Your task to perform on an android device: Open calendar and show me the second week of next month Image 0: 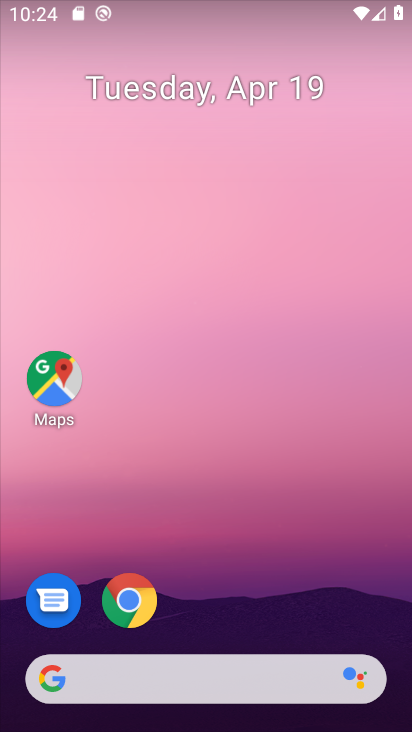
Step 0: drag from (223, 414) to (223, 37)
Your task to perform on an android device: Open calendar and show me the second week of next month Image 1: 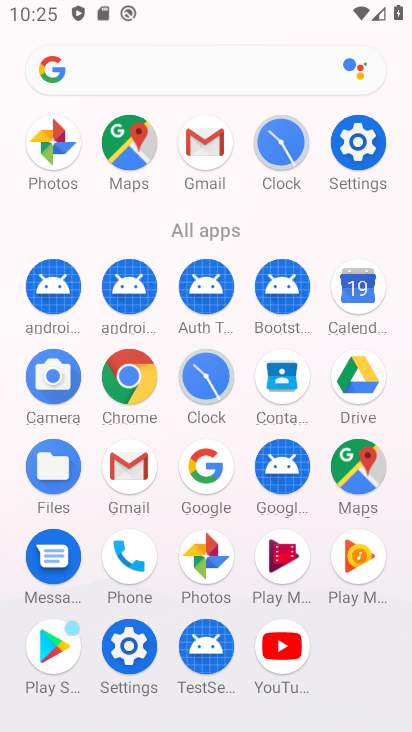
Step 1: click (346, 297)
Your task to perform on an android device: Open calendar and show me the second week of next month Image 2: 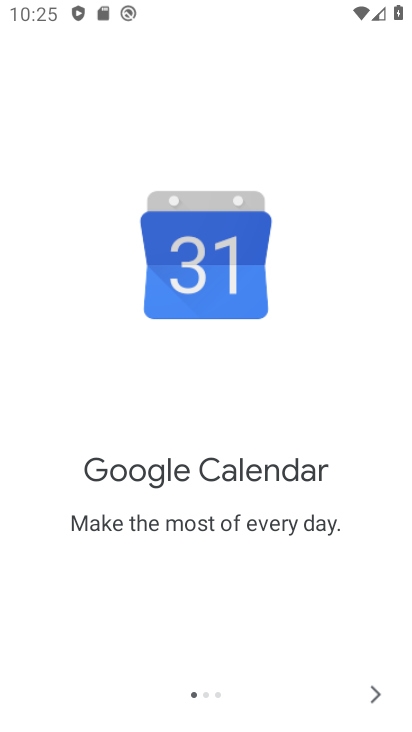
Step 2: click (372, 689)
Your task to perform on an android device: Open calendar and show me the second week of next month Image 3: 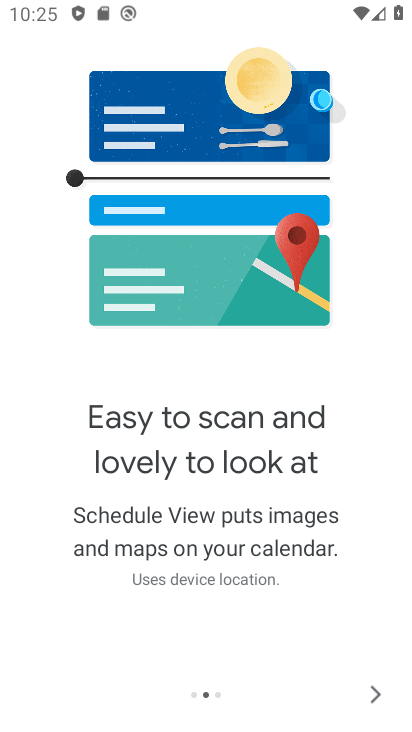
Step 3: click (369, 692)
Your task to perform on an android device: Open calendar and show me the second week of next month Image 4: 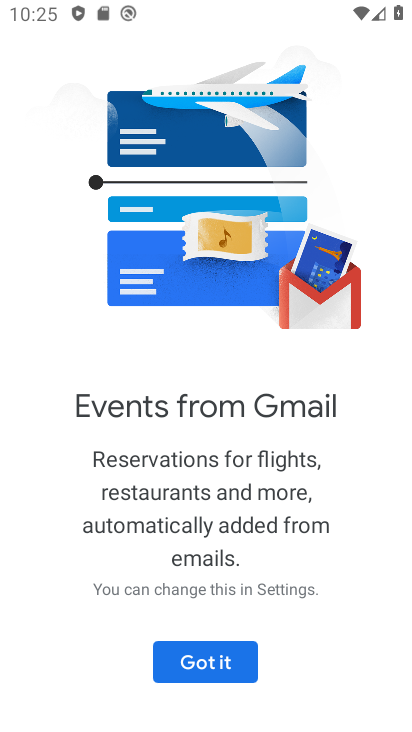
Step 4: click (247, 653)
Your task to perform on an android device: Open calendar and show me the second week of next month Image 5: 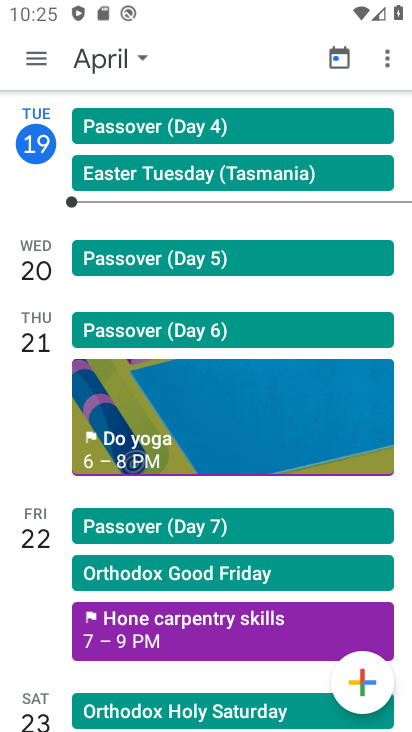
Step 5: click (124, 53)
Your task to perform on an android device: Open calendar and show me the second week of next month Image 6: 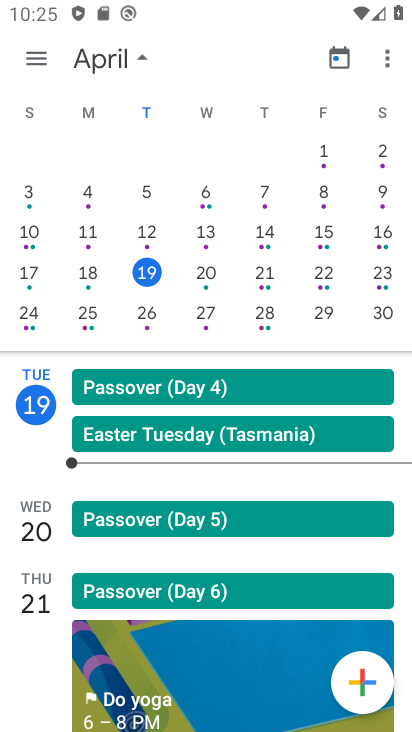
Step 6: drag from (293, 268) to (41, 213)
Your task to perform on an android device: Open calendar and show me the second week of next month Image 7: 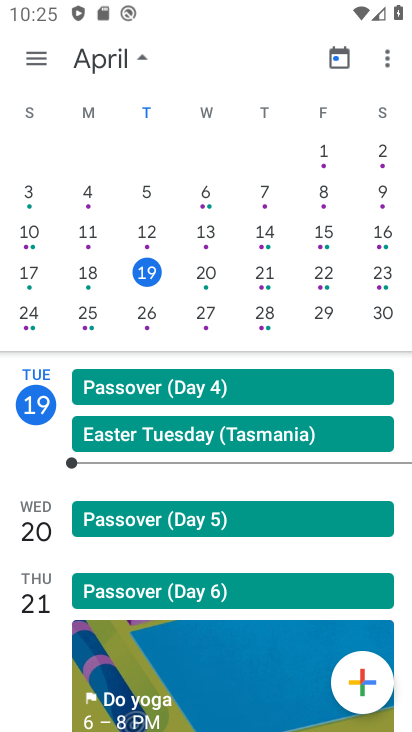
Step 7: drag from (348, 185) to (42, 135)
Your task to perform on an android device: Open calendar and show me the second week of next month Image 8: 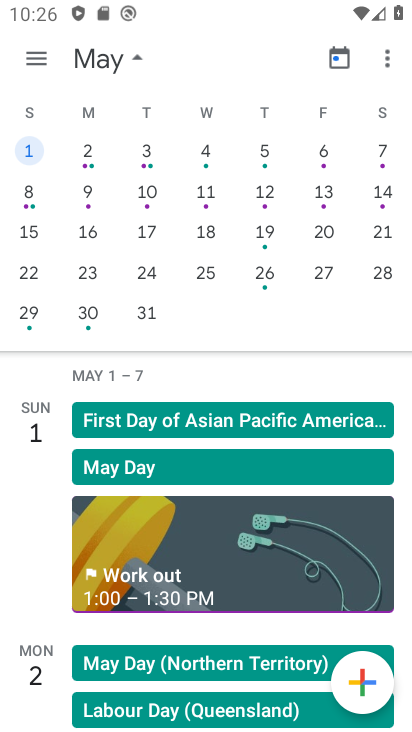
Step 8: click (92, 195)
Your task to perform on an android device: Open calendar and show me the second week of next month Image 9: 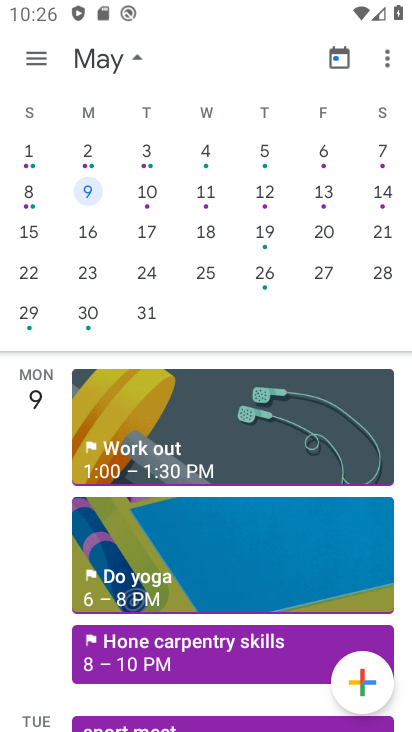
Step 9: click (145, 191)
Your task to perform on an android device: Open calendar and show me the second week of next month Image 10: 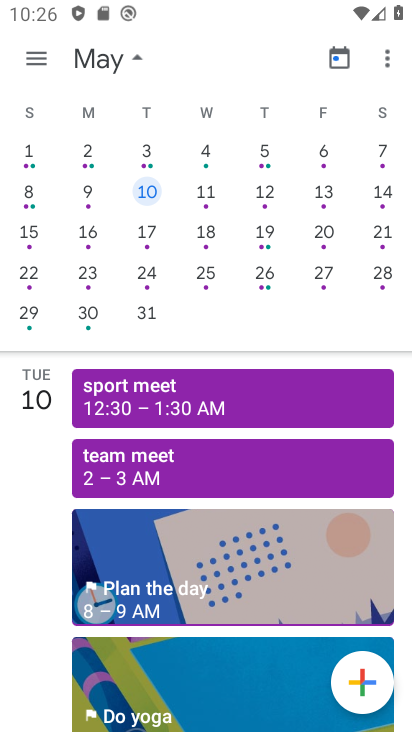
Step 10: task complete